Your task to perform on an android device: turn off notifications settings in the gmail app Image 0: 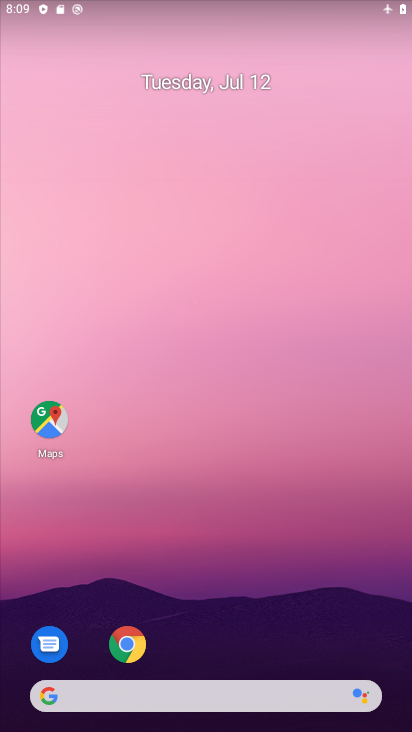
Step 0: drag from (216, 647) to (233, 160)
Your task to perform on an android device: turn off notifications settings in the gmail app Image 1: 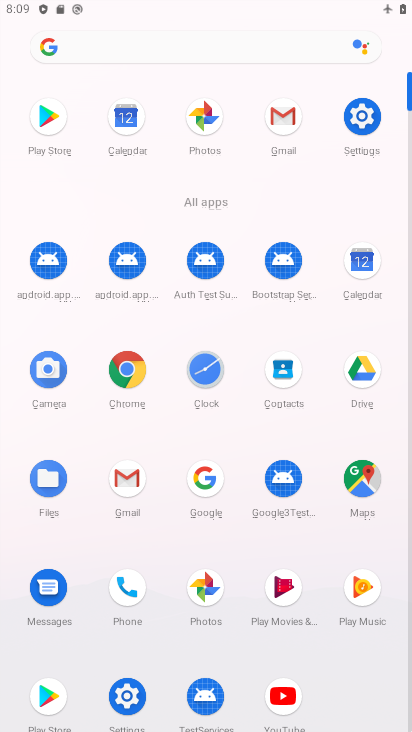
Step 1: click (274, 136)
Your task to perform on an android device: turn off notifications settings in the gmail app Image 2: 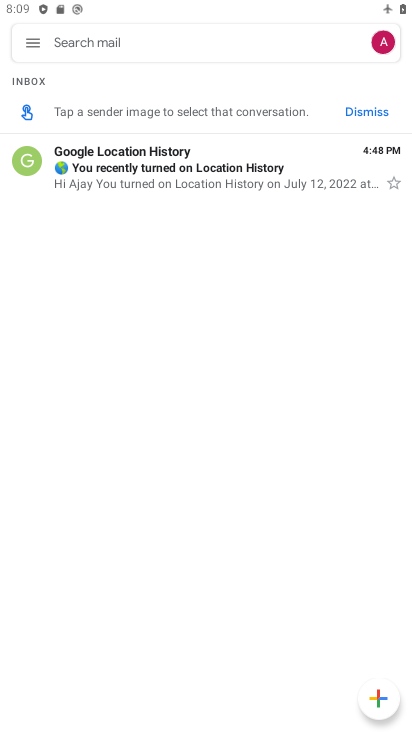
Step 2: click (24, 40)
Your task to perform on an android device: turn off notifications settings in the gmail app Image 3: 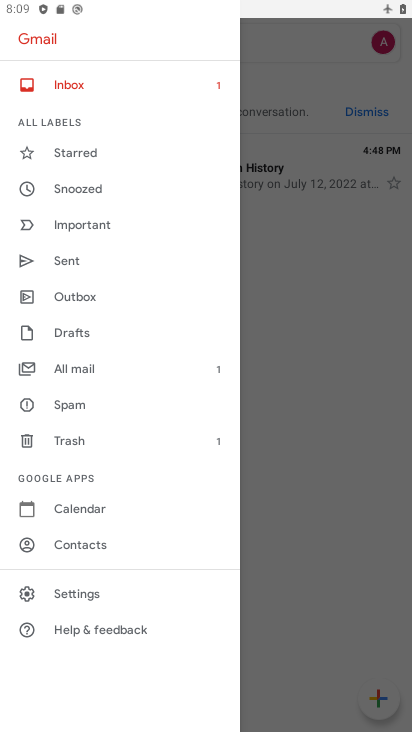
Step 3: click (91, 591)
Your task to perform on an android device: turn off notifications settings in the gmail app Image 4: 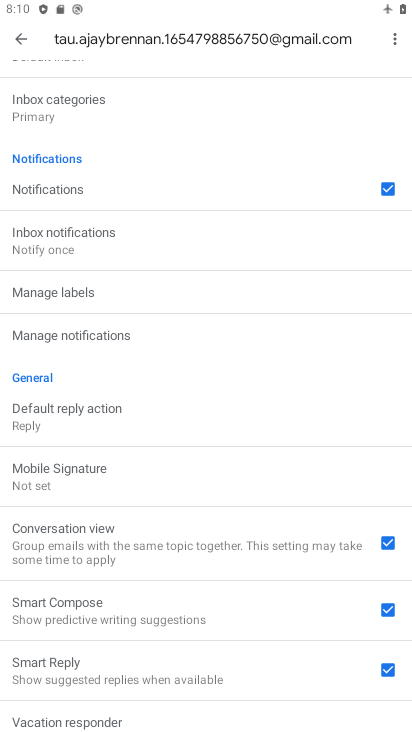
Step 4: click (136, 328)
Your task to perform on an android device: turn off notifications settings in the gmail app Image 5: 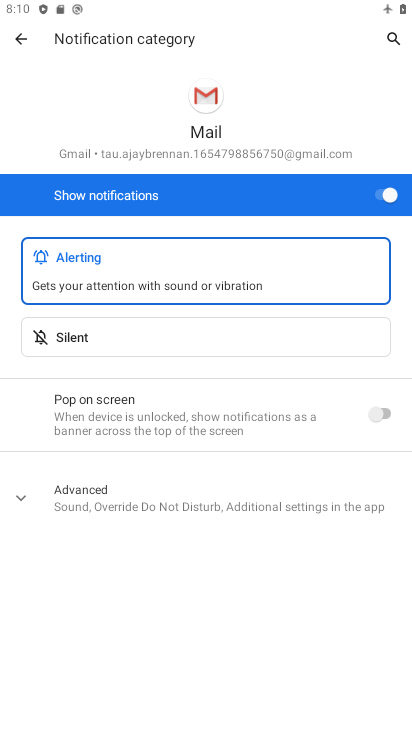
Step 5: click (372, 180)
Your task to perform on an android device: turn off notifications settings in the gmail app Image 6: 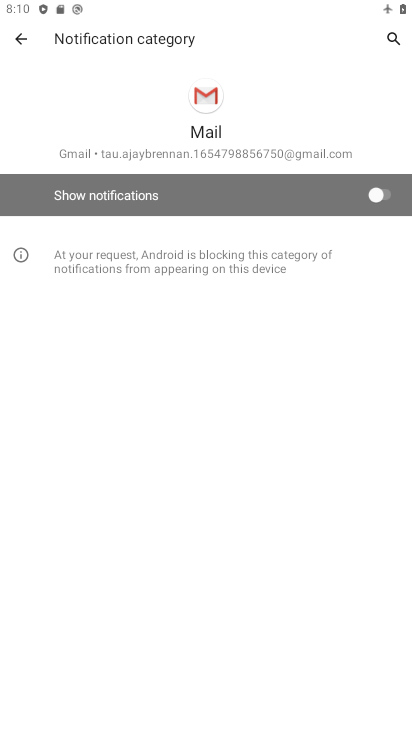
Step 6: task complete